Your task to perform on an android device: Do I have any events tomorrow? Image 0: 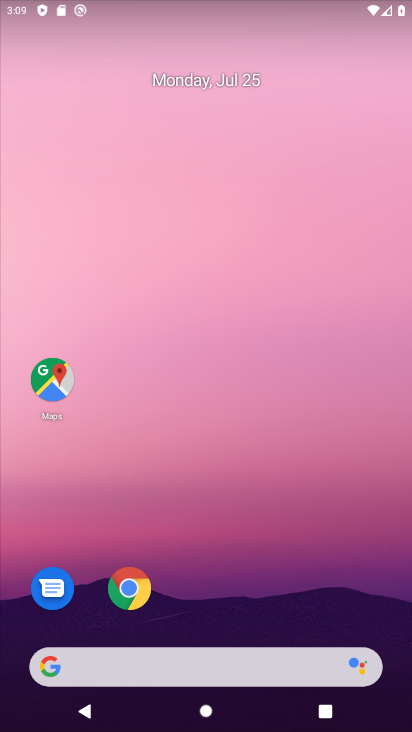
Step 0: drag from (289, 541) to (170, 42)
Your task to perform on an android device: Do I have any events tomorrow? Image 1: 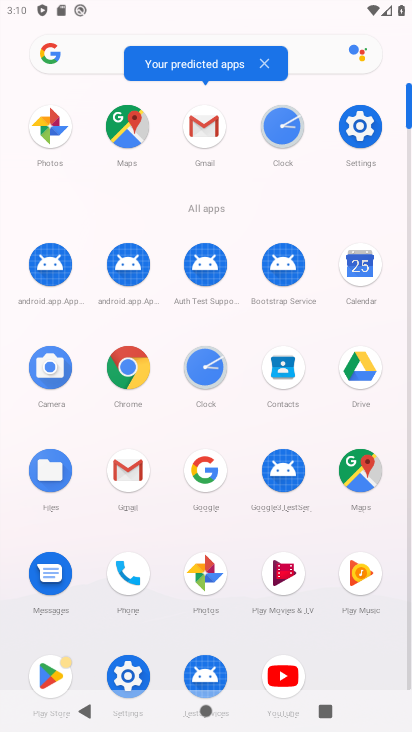
Step 1: click (350, 271)
Your task to perform on an android device: Do I have any events tomorrow? Image 2: 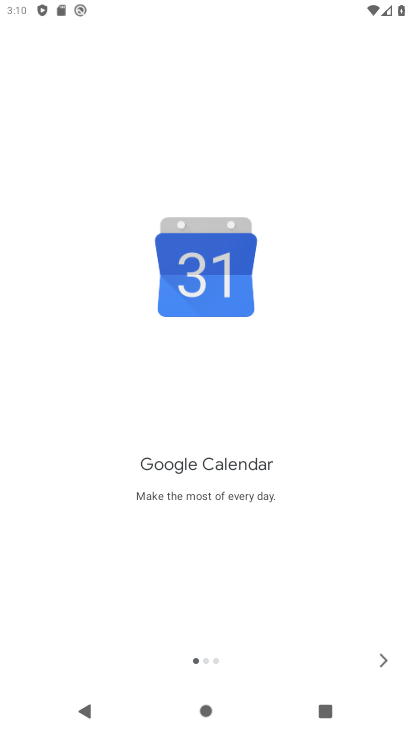
Step 2: click (387, 661)
Your task to perform on an android device: Do I have any events tomorrow? Image 3: 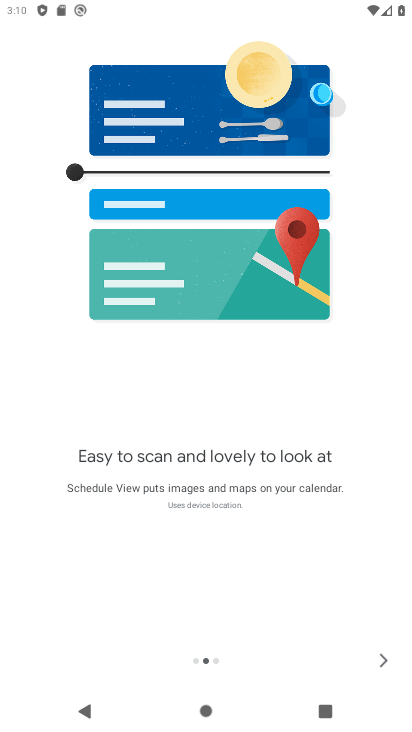
Step 3: click (387, 661)
Your task to perform on an android device: Do I have any events tomorrow? Image 4: 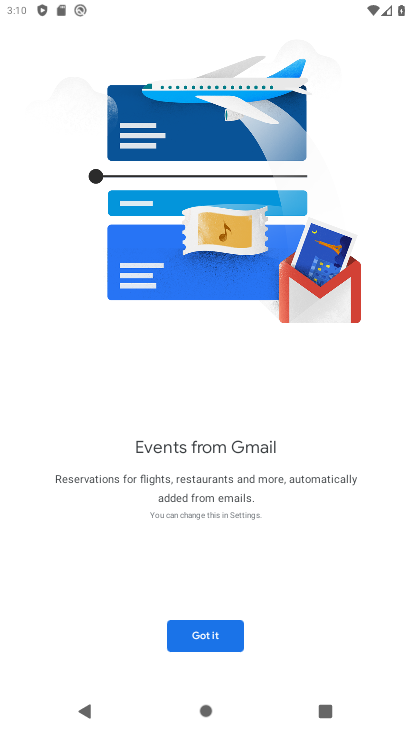
Step 4: click (183, 637)
Your task to perform on an android device: Do I have any events tomorrow? Image 5: 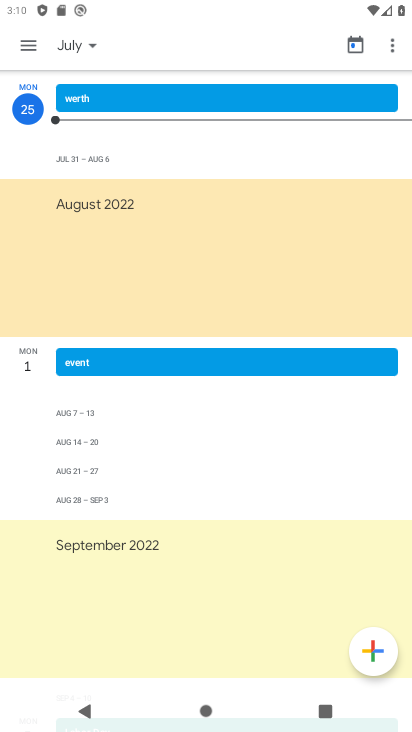
Step 5: click (29, 46)
Your task to perform on an android device: Do I have any events tomorrow? Image 6: 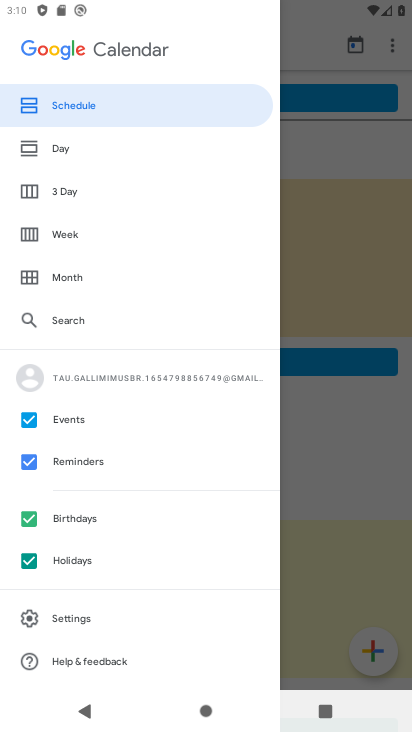
Step 6: click (85, 149)
Your task to perform on an android device: Do I have any events tomorrow? Image 7: 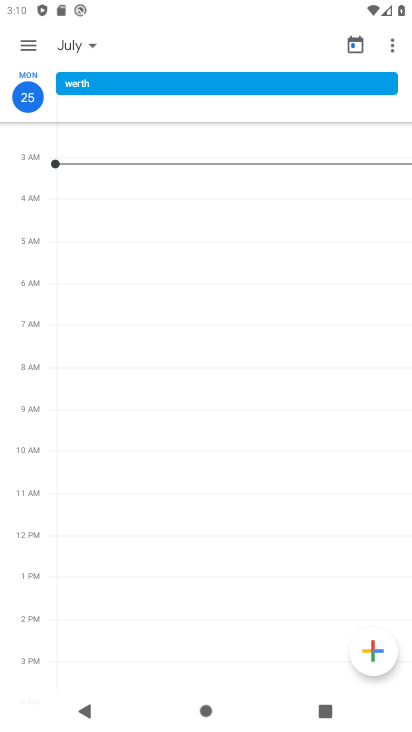
Step 7: click (86, 44)
Your task to perform on an android device: Do I have any events tomorrow? Image 8: 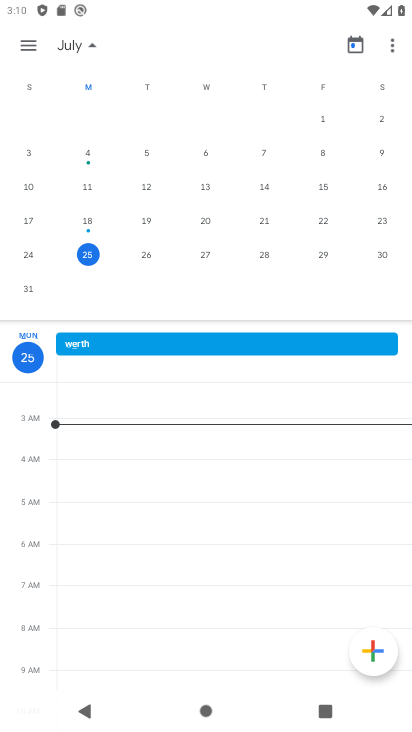
Step 8: click (149, 256)
Your task to perform on an android device: Do I have any events tomorrow? Image 9: 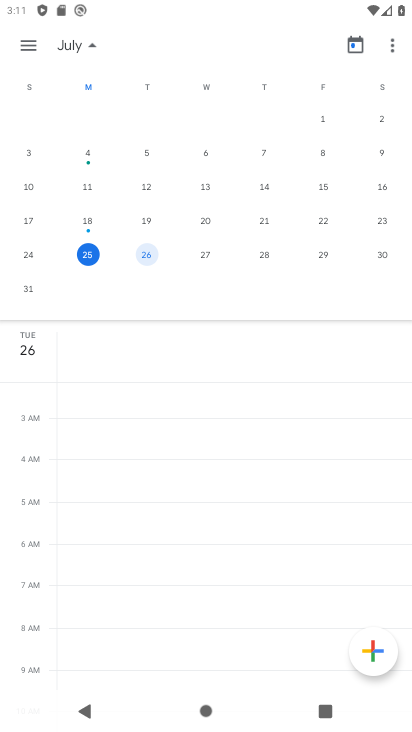
Step 9: task complete